Your task to perform on an android device: see sites visited before in the chrome app Image 0: 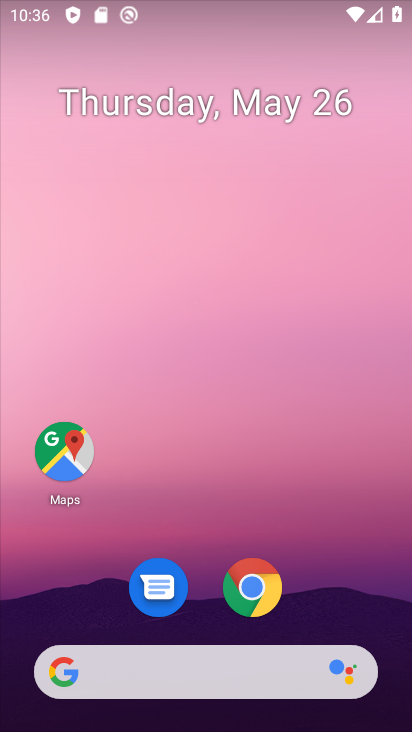
Step 0: drag from (221, 694) to (344, 131)
Your task to perform on an android device: see sites visited before in the chrome app Image 1: 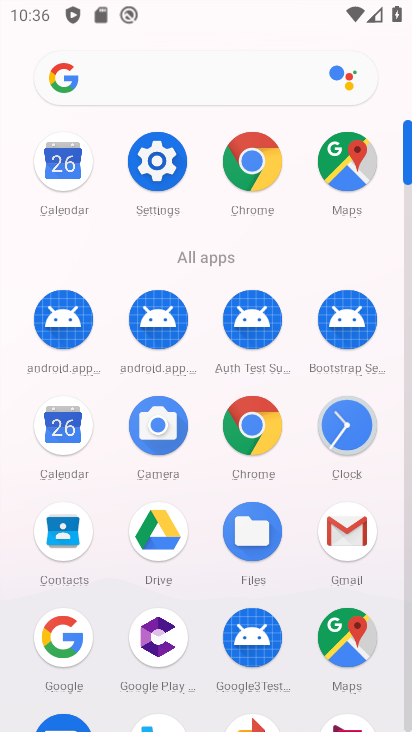
Step 1: click (260, 166)
Your task to perform on an android device: see sites visited before in the chrome app Image 2: 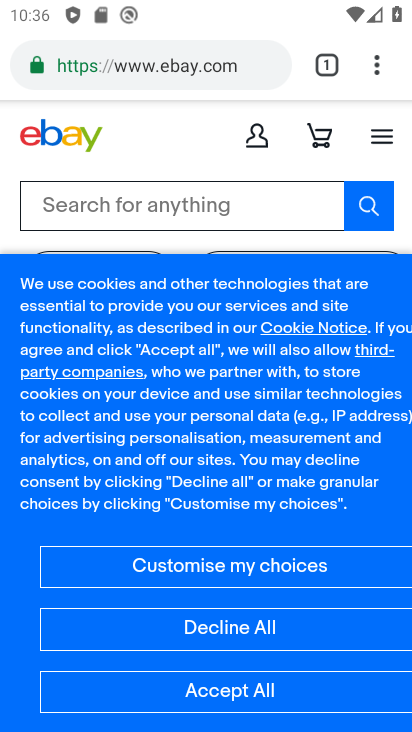
Step 2: click (373, 77)
Your task to perform on an android device: see sites visited before in the chrome app Image 3: 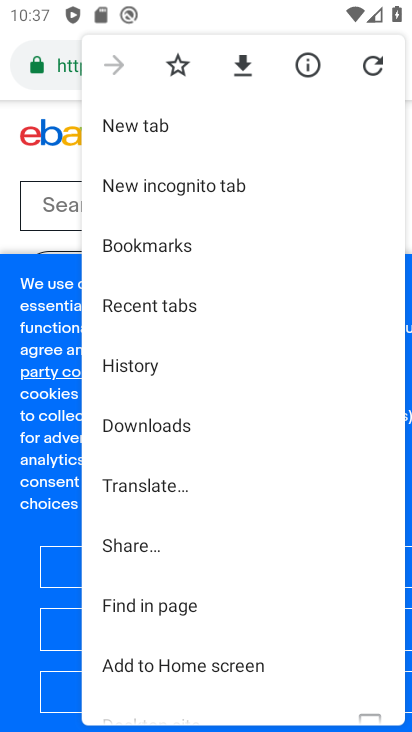
Step 3: drag from (228, 494) to (251, 161)
Your task to perform on an android device: see sites visited before in the chrome app Image 4: 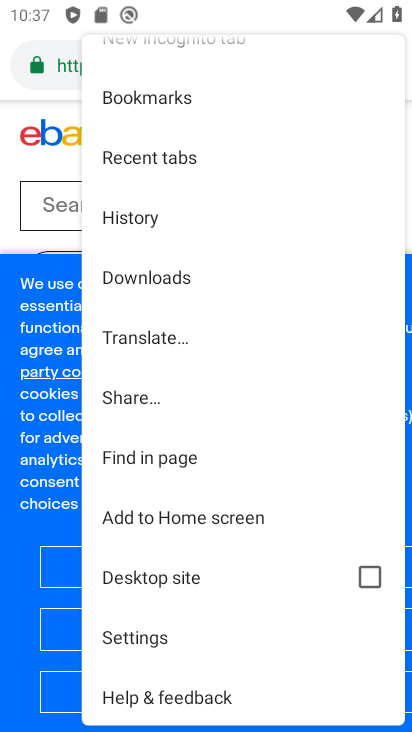
Step 4: drag from (202, 542) to (227, 217)
Your task to perform on an android device: see sites visited before in the chrome app Image 5: 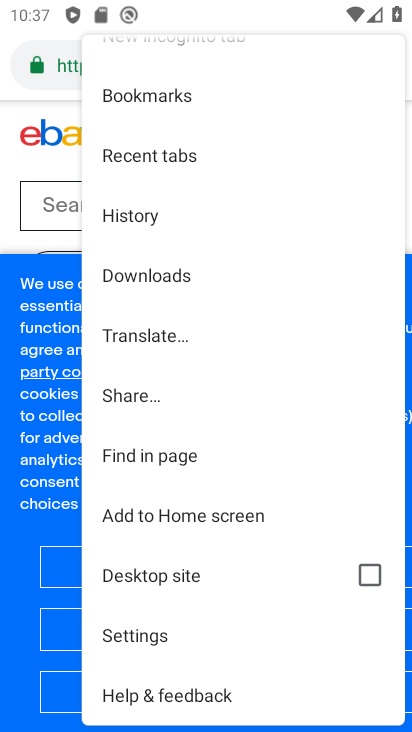
Step 5: drag from (236, 523) to (272, 221)
Your task to perform on an android device: see sites visited before in the chrome app Image 6: 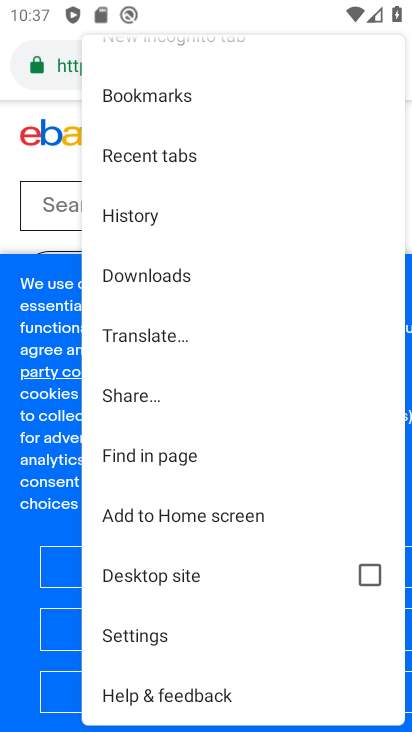
Step 6: click (165, 625)
Your task to perform on an android device: see sites visited before in the chrome app Image 7: 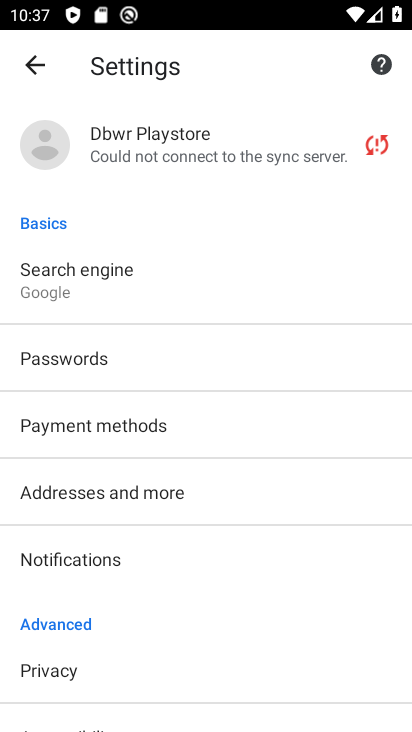
Step 7: drag from (84, 510) to (104, 189)
Your task to perform on an android device: see sites visited before in the chrome app Image 8: 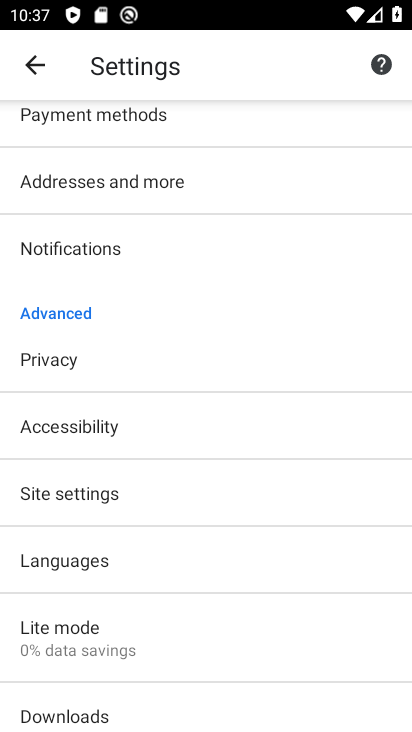
Step 8: click (112, 505)
Your task to perform on an android device: see sites visited before in the chrome app Image 9: 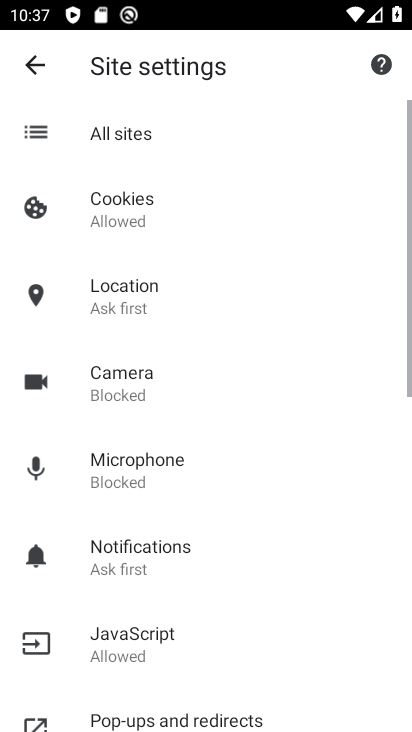
Step 9: click (182, 144)
Your task to perform on an android device: see sites visited before in the chrome app Image 10: 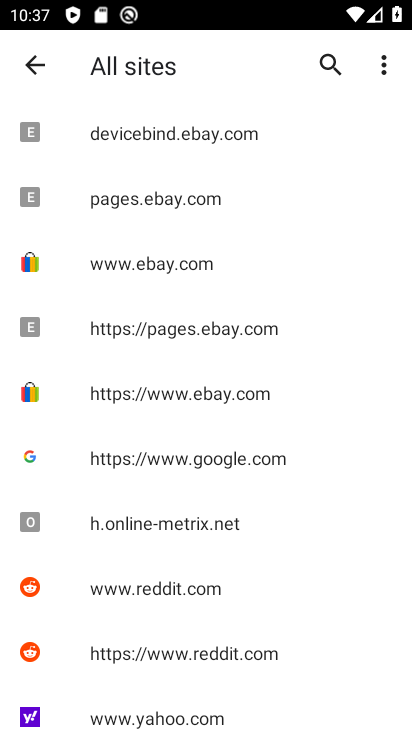
Step 10: click (169, 265)
Your task to perform on an android device: see sites visited before in the chrome app Image 11: 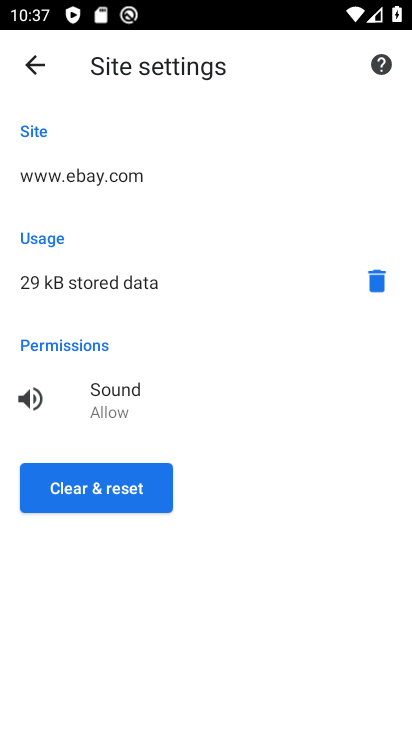
Step 11: task complete